Your task to perform on an android device: Turn off the flashlight Image 0: 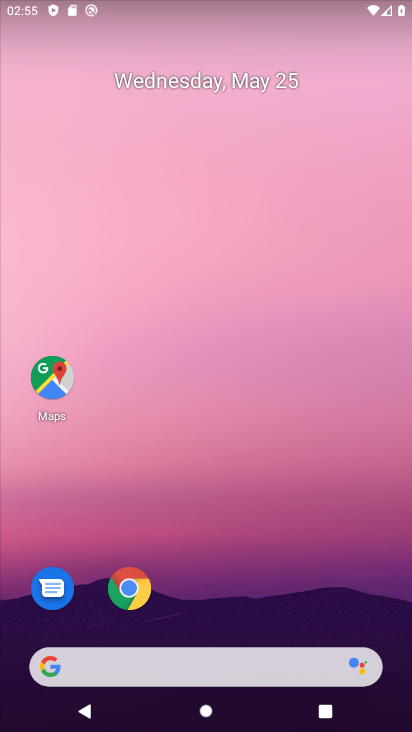
Step 0: press home button
Your task to perform on an android device: Turn off the flashlight Image 1: 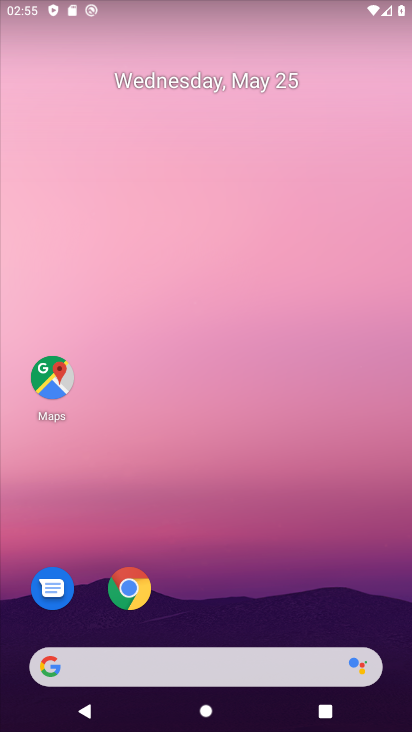
Step 1: drag from (372, 0) to (409, 109)
Your task to perform on an android device: Turn off the flashlight Image 2: 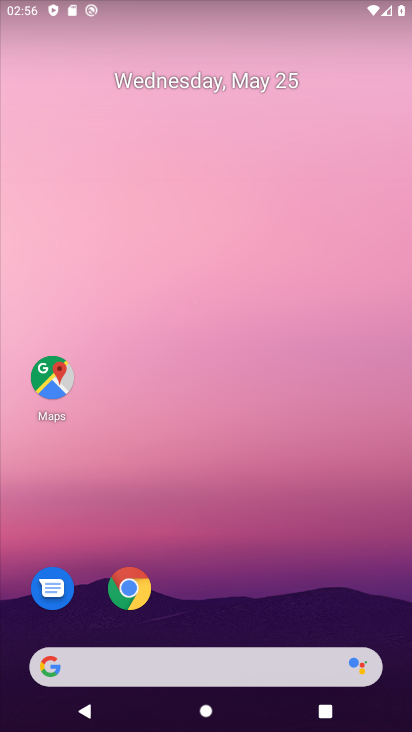
Step 2: drag from (218, 59) to (130, 658)
Your task to perform on an android device: Turn off the flashlight Image 3: 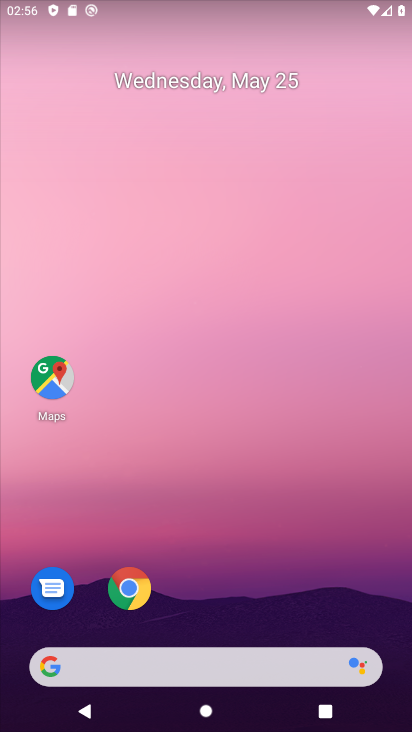
Step 3: drag from (378, 3) to (393, 291)
Your task to perform on an android device: Turn off the flashlight Image 4: 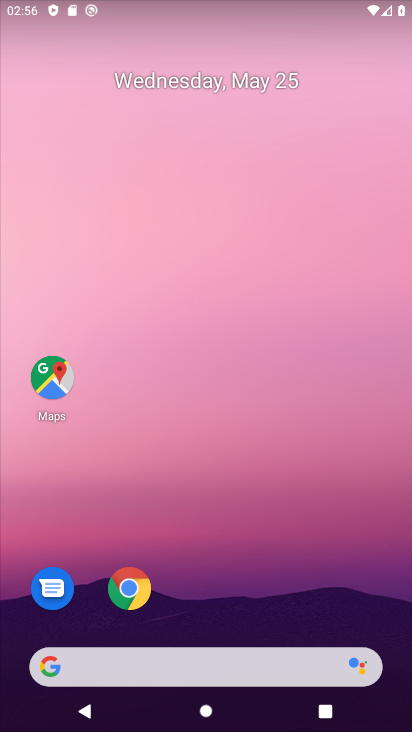
Step 4: drag from (310, 3) to (220, 583)
Your task to perform on an android device: Turn off the flashlight Image 5: 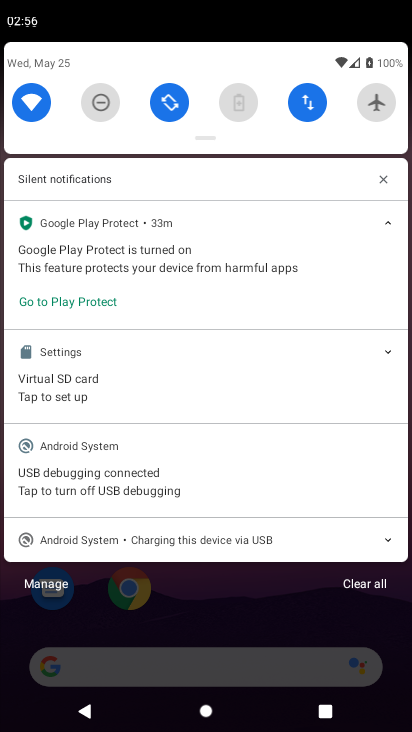
Step 5: click (208, 123)
Your task to perform on an android device: Turn off the flashlight Image 6: 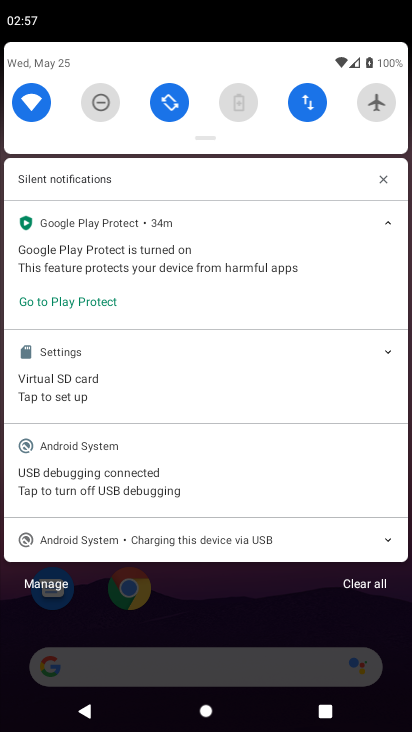
Step 6: task complete